Your task to perform on an android device: turn off wifi Image 0: 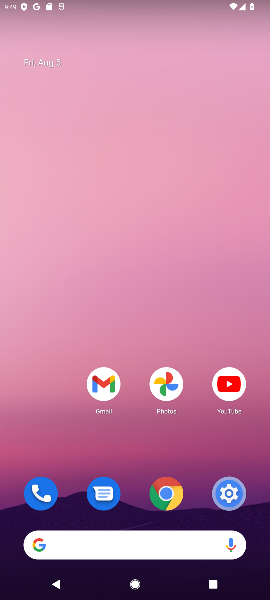
Step 0: drag from (132, 464) to (172, 0)
Your task to perform on an android device: turn off wifi Image 1: 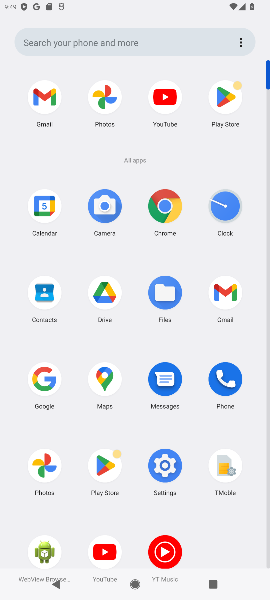
Step 1: click (161, 460)
Your task to perform on an android device: turn off wifi Image 2: 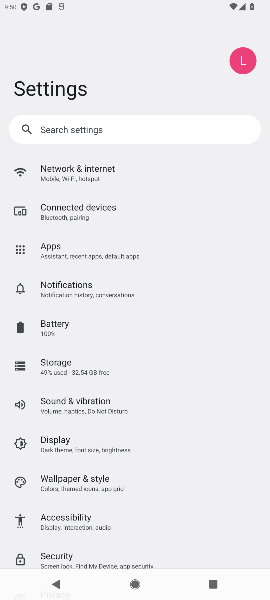
Step 2: click (95, 173)
Your task to perform on an android device: turn off wifi Image 3: 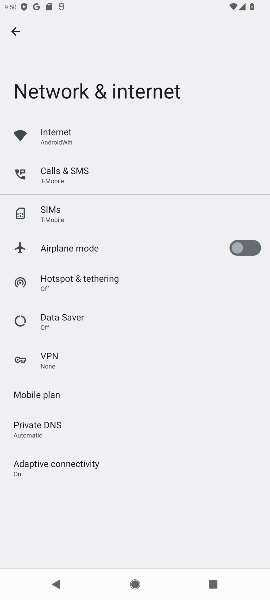
Step 3: click (81, 132)
Your task to perform on an android device: turn off wifi Image 4: 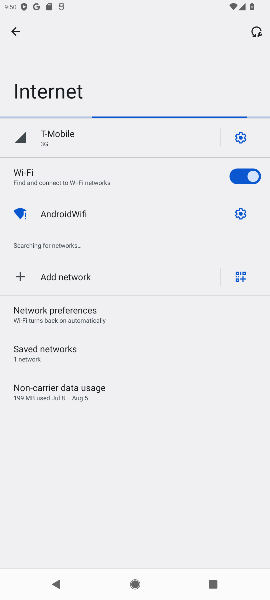
Step 4: click (236, 171)
Your task to perform on an android device: turn off wifi Image 5: 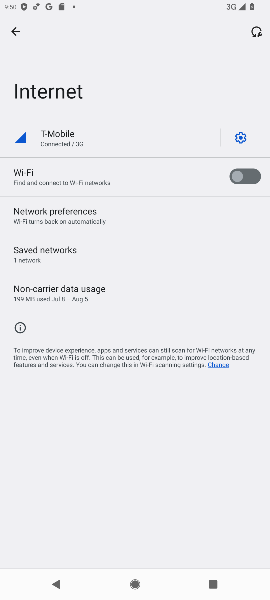
Step 5: task complete